Your task to perform on an android device: Open Chrome and go to settings Image 0: 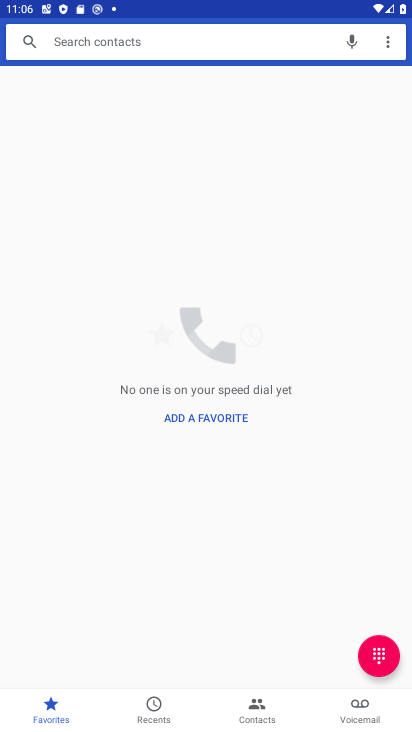
Step 0: drag from (194, 641) to (195, 241)
Your task to perform on an android device: Open Chrome and go to settings Image 1: 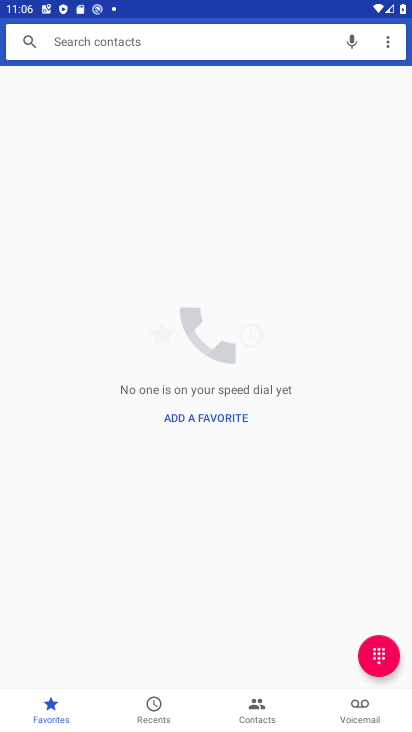
Step 1: press home button
Your task to perform on an android device: Open Chrome and go to settings Image 2: 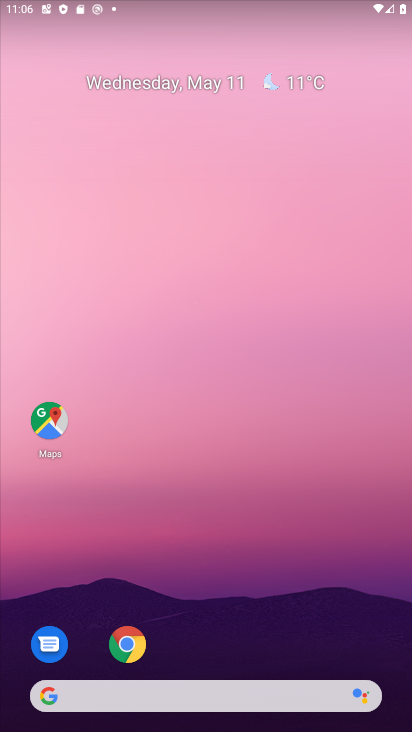
Step 2: drag from (209, 661) to (189, 144)
Your task to perform on an android device: Open Chrome and go to settings Image 3: 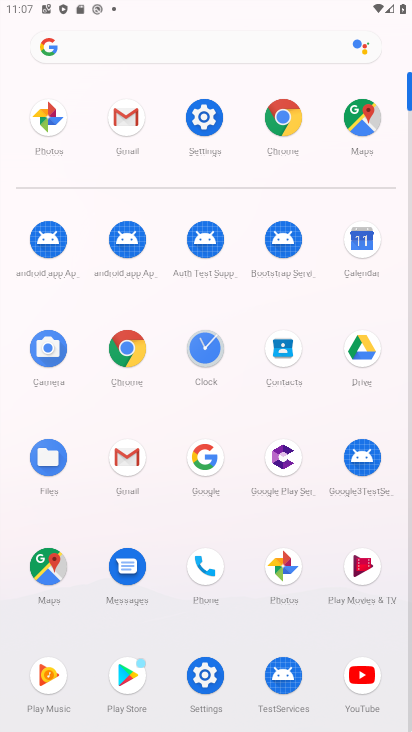
Step 3: click (281, 105)
Your task to perform on an android device: Open Chrome and go to settings Image 4: 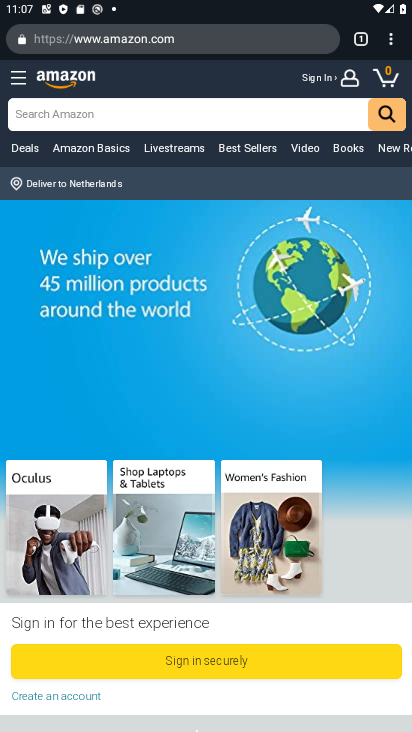
Step 4: click (392, 39)
Your task to perform on an android device: Open Chrome and go to settings Image 5: 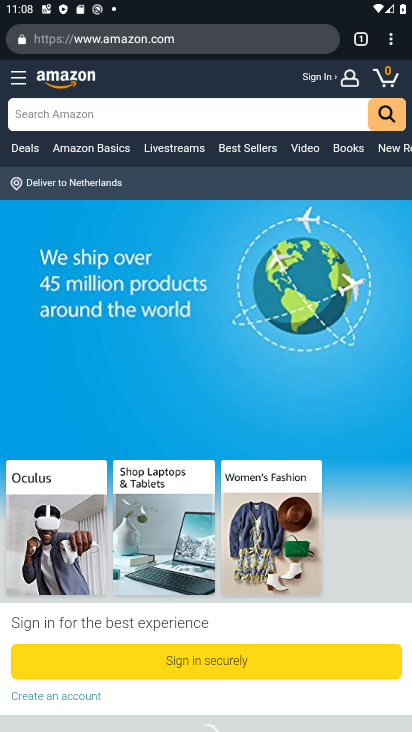
Step 5: click (393, 37)
Your task to perform on an android device: Open Chrome and go to settings Image 6: 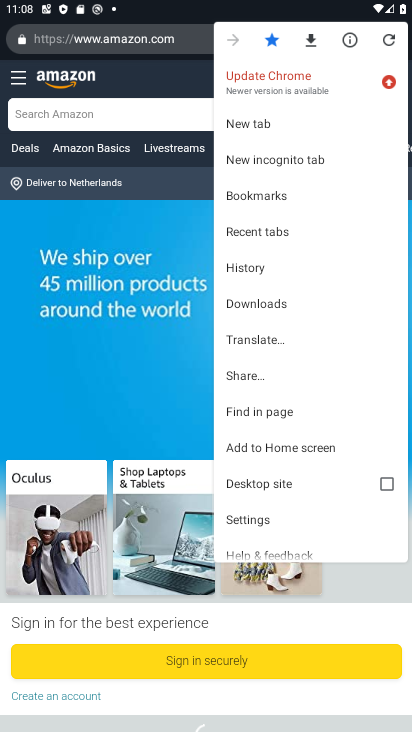
Step 6: click (276, 521)
Your task to perform on an android device: Open Chrome and go to settings Image 7: 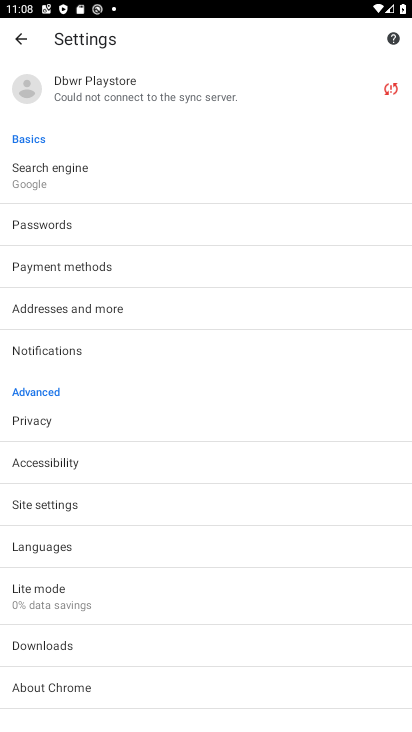
Step 7: task complete